Your task to perform on an android device: change the clock display to show seconds Image 0: 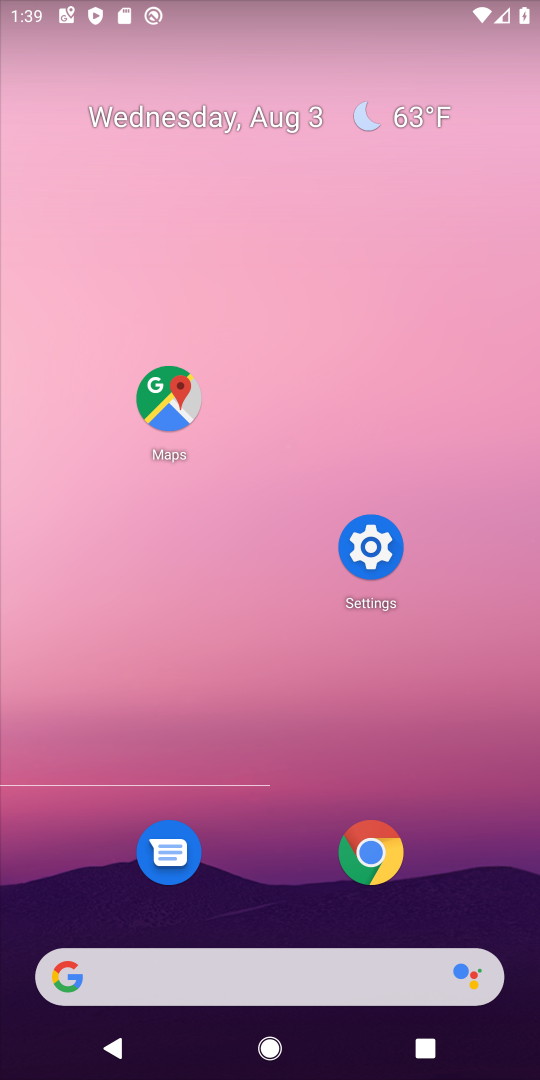
Step 0: press home button
Your task to perform on an android device: change the clock display to show seconds Image 1: 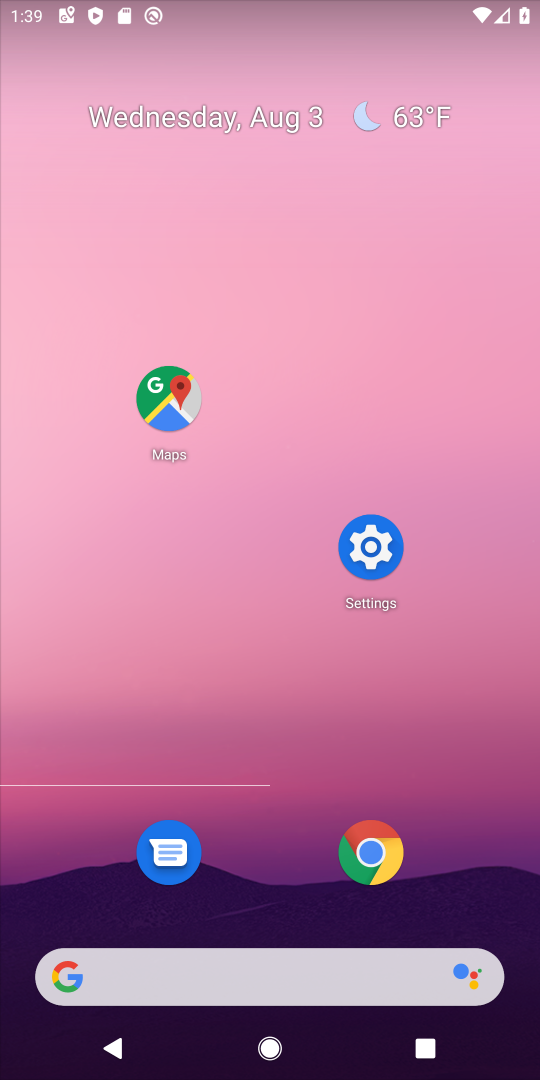
Step 1: drag from (188, 975) to (397, 103)
Your task to perform on an android device: change the clock display to show seconds Image 2: 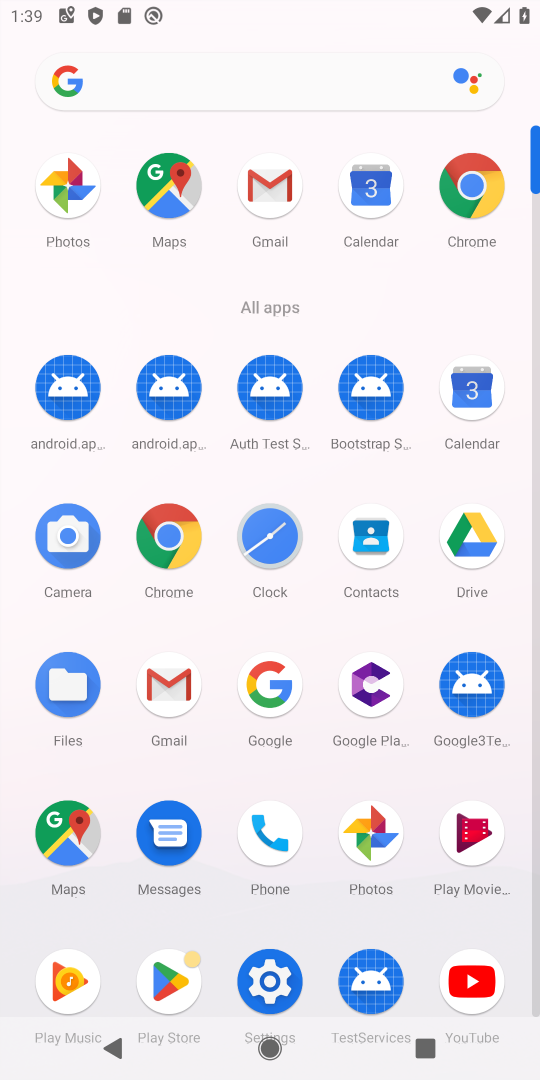
Step 2: click (276, 538)
Your task to perform on an android device: change the clock display to show seconds Image 3: 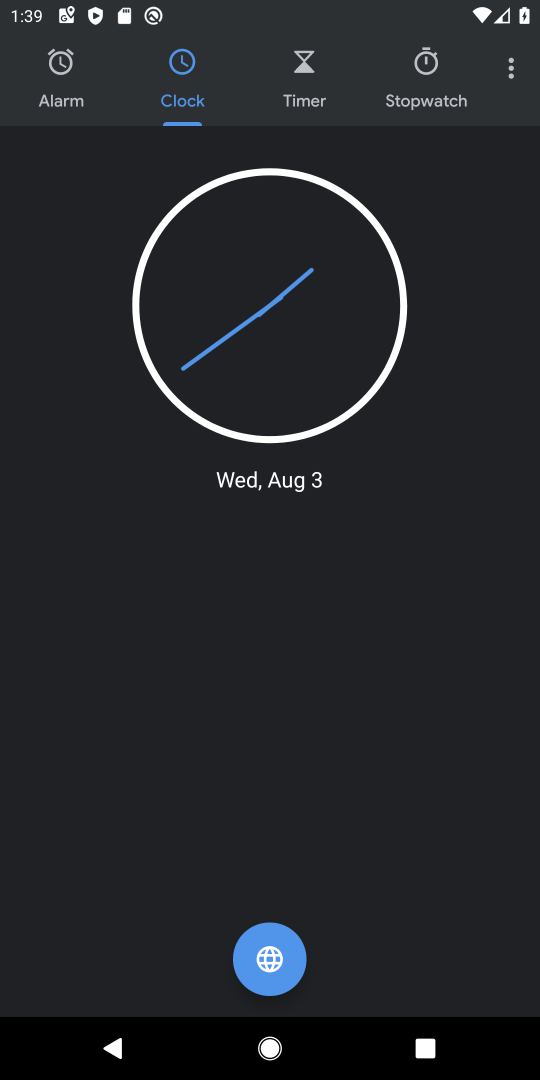
Step 3: click (510, 74)
Your task to perform on an android device: change the clock display to show seconds Image 4: 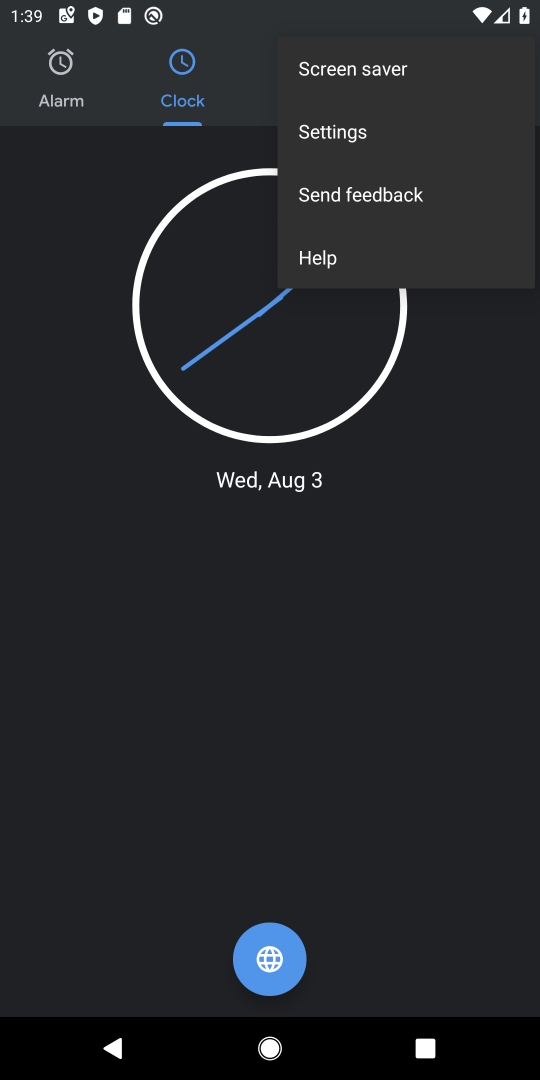
Step 4: click (356, 132)
Your task to perform on an android device: change the clock display to show seconds Image 5: 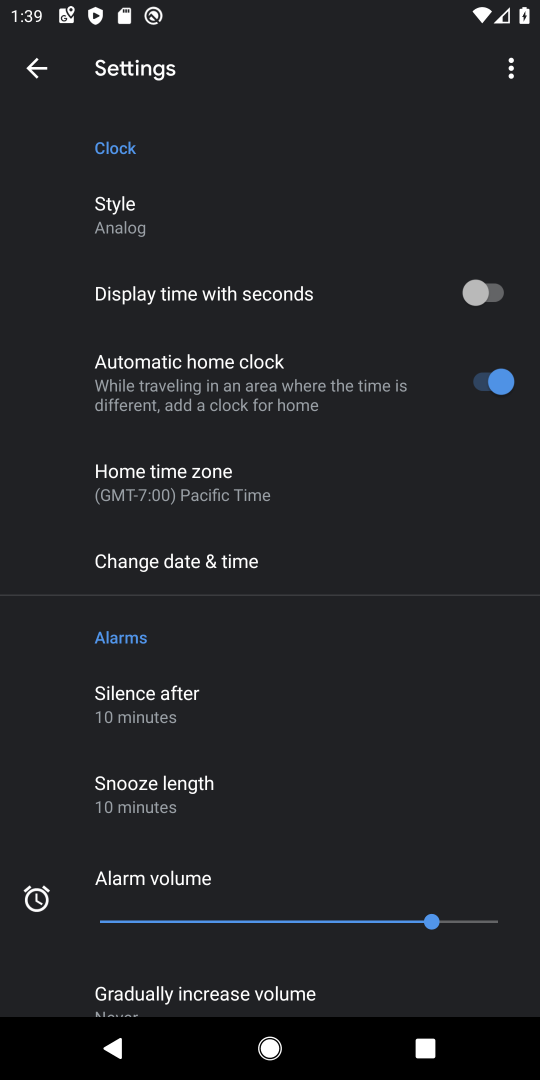
Step 5: click (488, 288)
Your task to perform on an android device: change the clock display to show seconds Image 6: 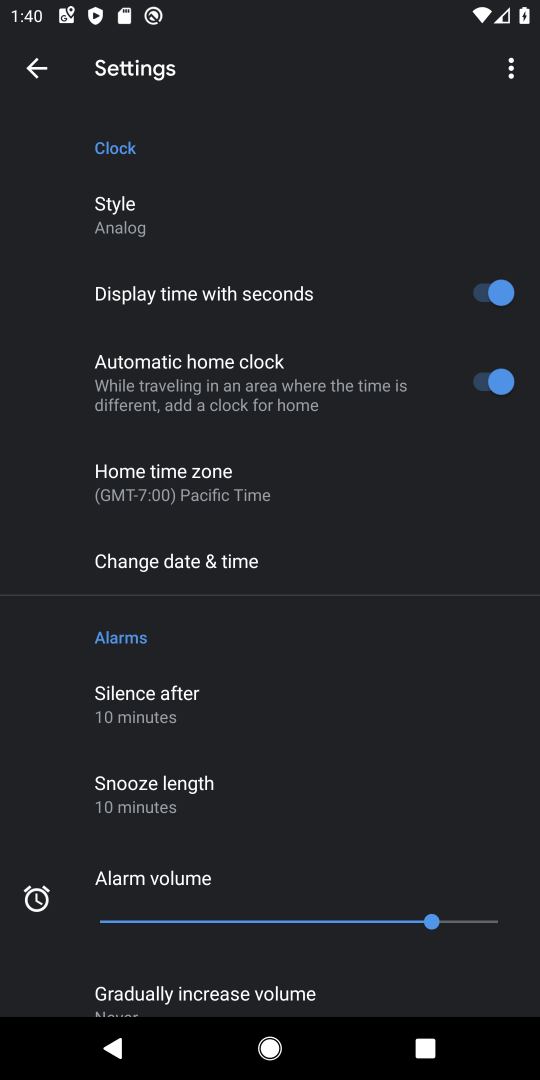
Step 6: task complete